Your task to perform on an android device: set the timer Image 0: 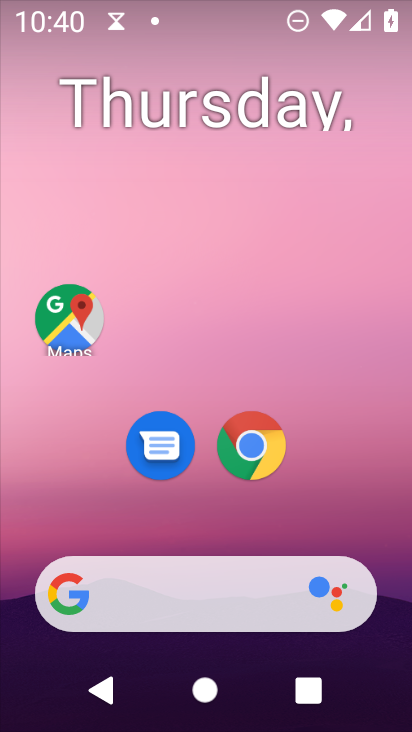
Step 0: drag from (225, 726) to (253, 70)
Your task to perform on an android device: set the timer Image 1: 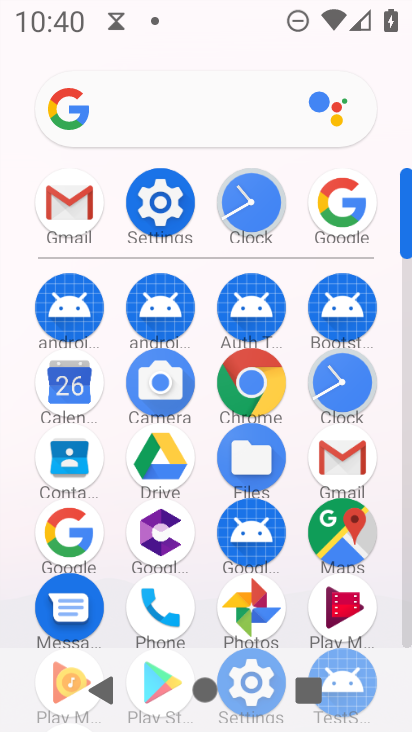
Step 1: click (335, 393)
Your task to perform on an android device: set the timer Image 2: 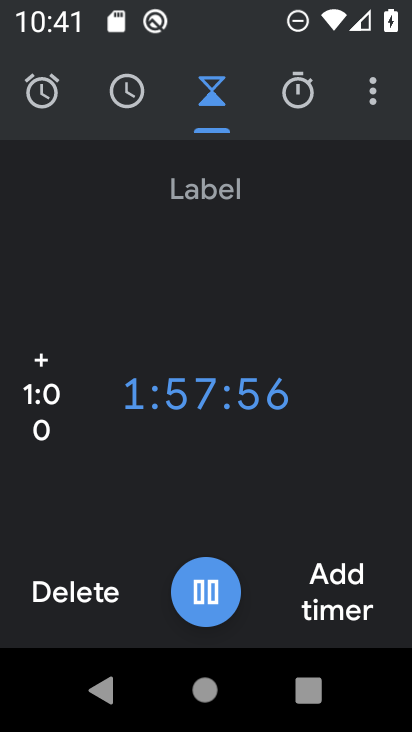
Step 2: click (348, 590)
Your task to perform on an android device: set the timer Image 3: 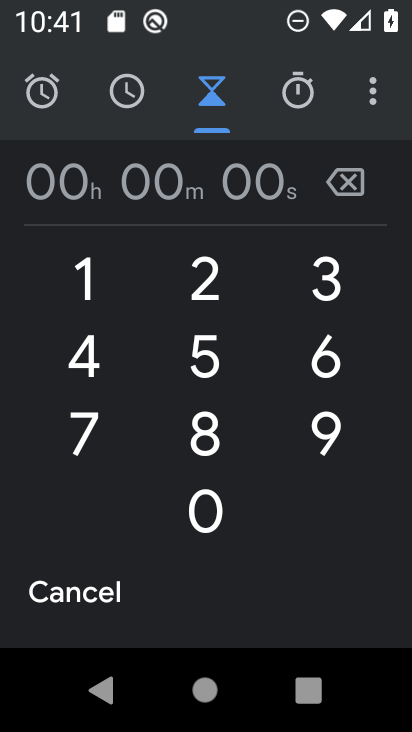
Step 3: click (208, 351)
Your task to perform on an android device: set the timer Image 4: 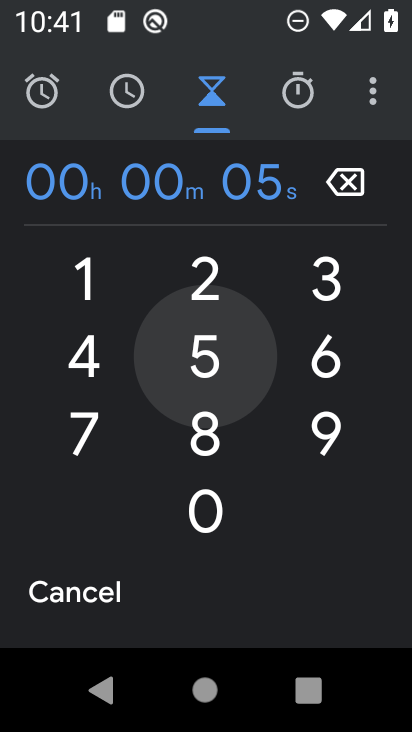
Step 4: click (196, 439)
Your task to perform on an android device: set the timer Image 5: 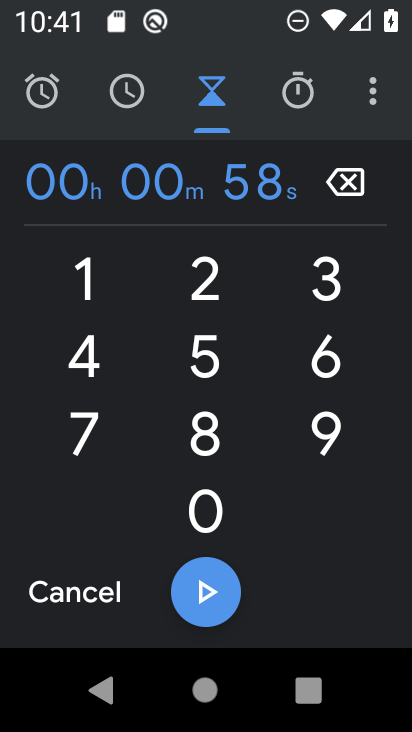
Step 5: click (329, 416)
Your task to perform on an android device: set the timer Image 6: 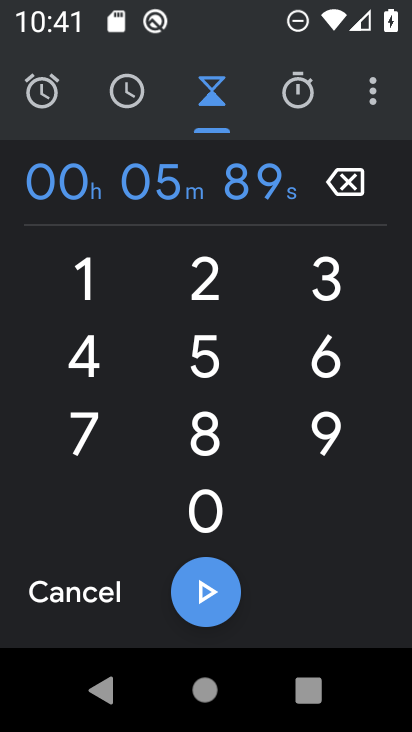
Step 6: click (211, 589)
Your task to perform on an android device: set the timer Image 7: 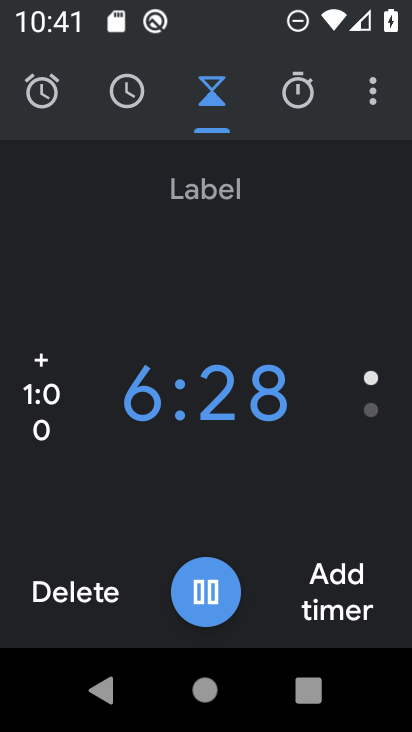
Step 7: task complete